Your task to perform on an android device: Toggle the flashlight Image 0: 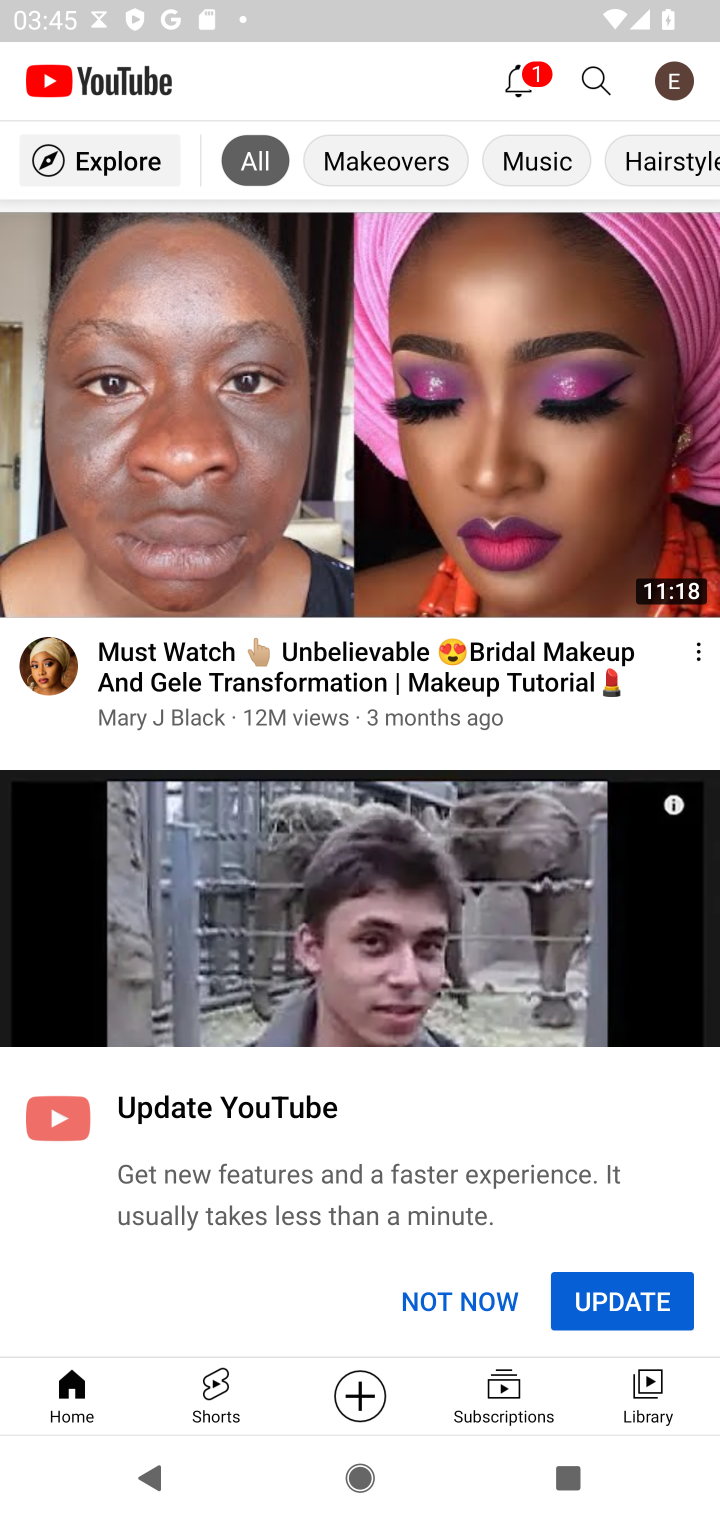
Step 0: press home button
Your task to perform on an android device: Toggle the flashlight Image 1: 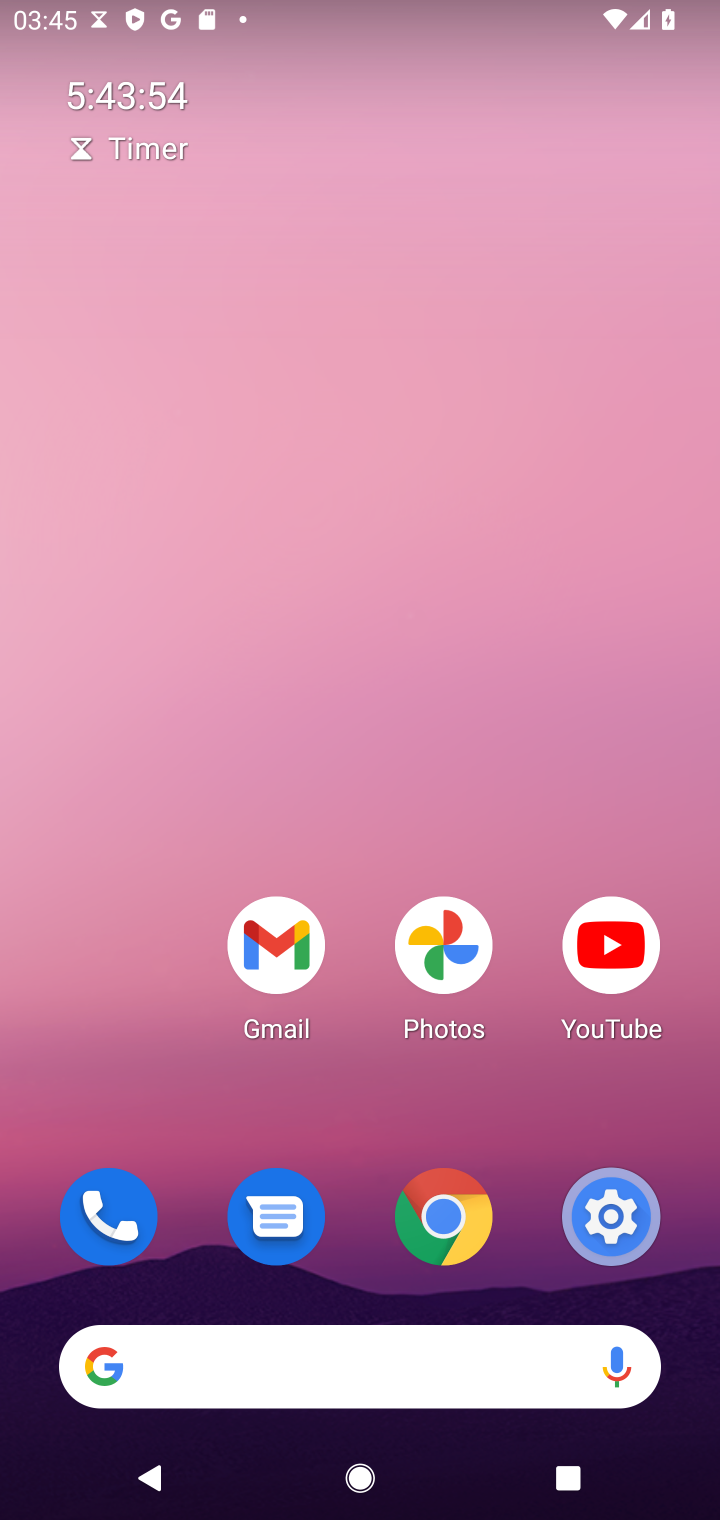
Step 1: click (629, 1214)
Your task to perform on an android device: Toggle the flashlight Image 2: 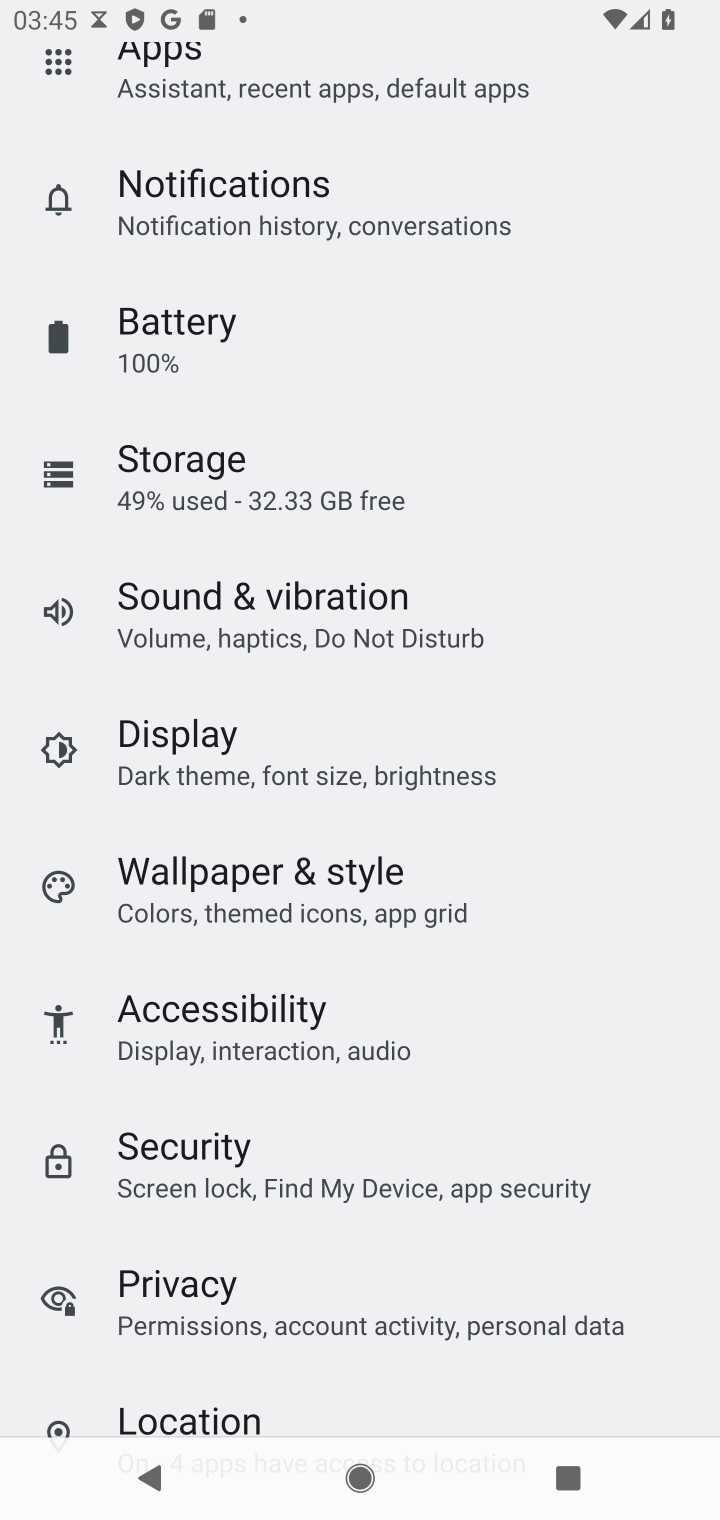
Step 2: task complete